Your task to perform on an android device: toggle airplane mode Image 0: 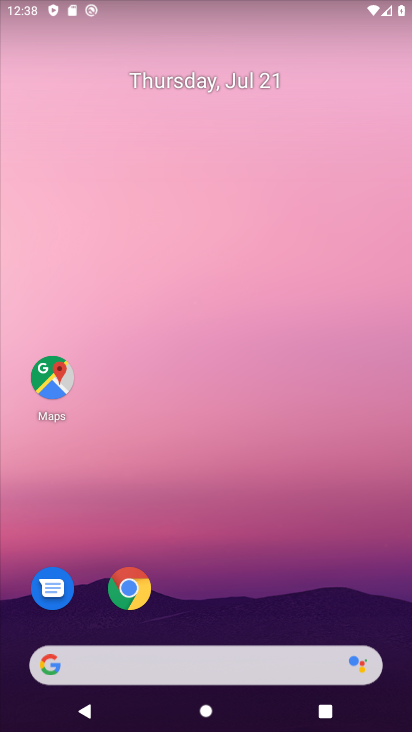
Step 0: drag from (295, 607) to (265, 62)
Your task to perform on an android device: toggle airplane mode Image 1: 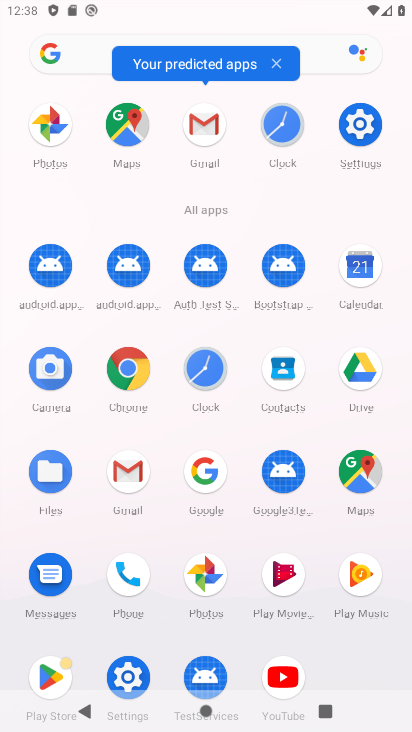
Step 1: click (367, 129)
Your task to perform on an android device: toggle airplane mode Image 2: 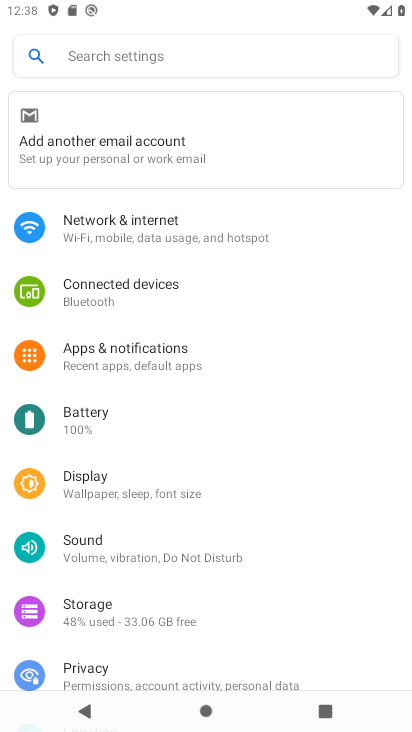
Step 2: click (201, 226)
Your task to perform on an android device: toggle airplane mode Image 3: 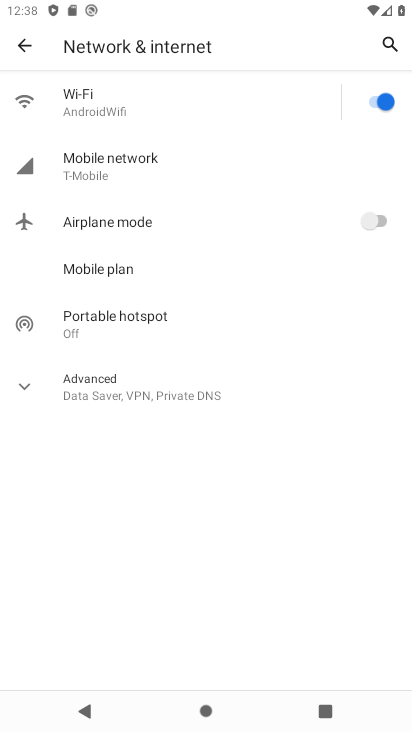
Step 3: click (371, 235)
Your task to perform on an android device: toggle airplane mode Image 4: 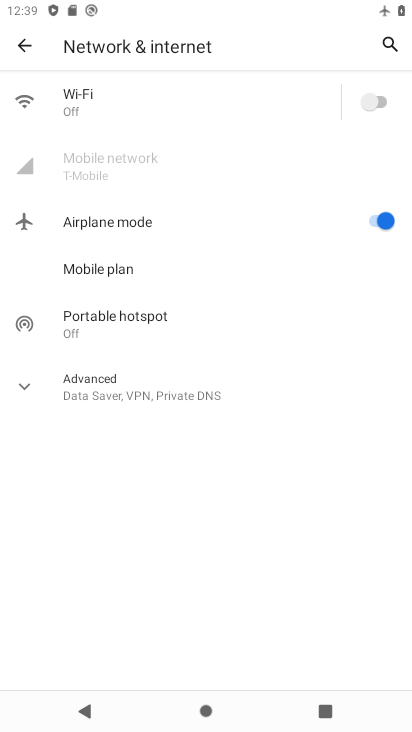
Step 4: task complete